Your task to perform on an android device: find which apps use the phone's location Image 0: 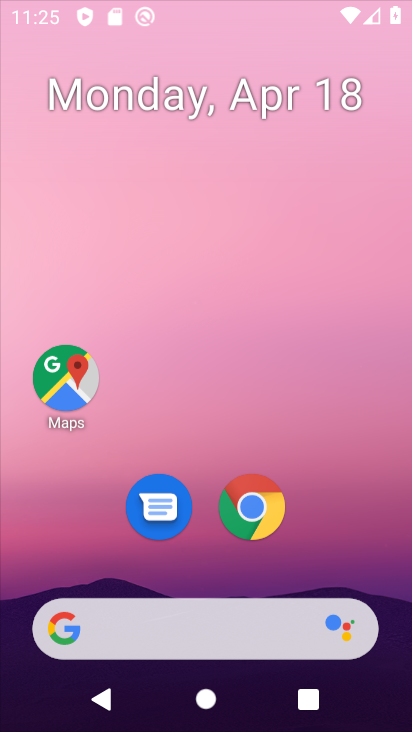
Step 0: drag from (348, 556) to (326, 146)
Your task to perform on an android device: find which apps use the phone's location Image 1: 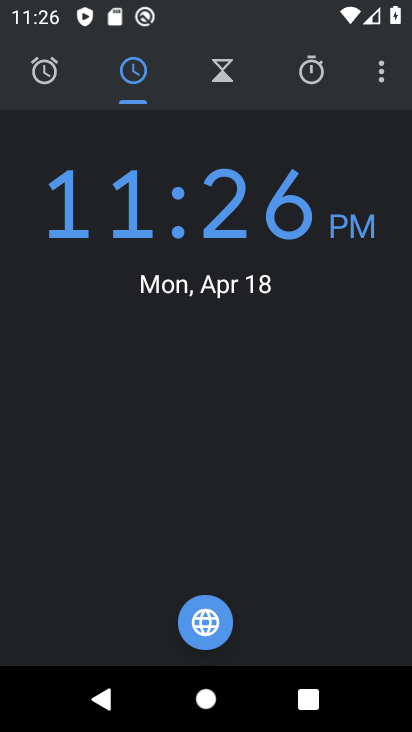
Step 1: press home button
Your task to perform on an android device: find which apps use the phone's location Image 2: 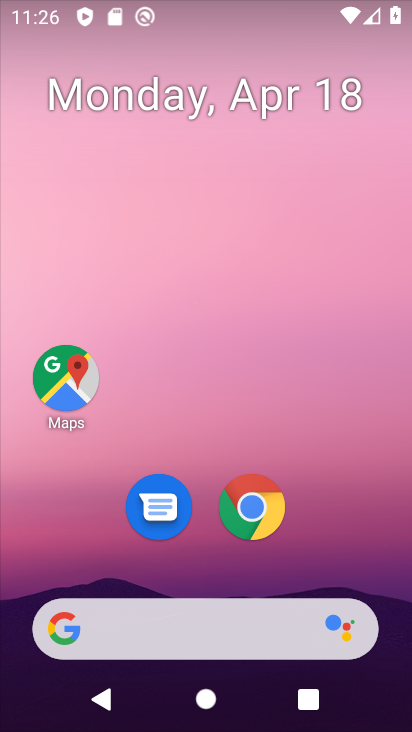
Step 2: drag from (307, 541) to (306, 119)
Your task to perform on an android device: find which apps use the phone's location Image 3: 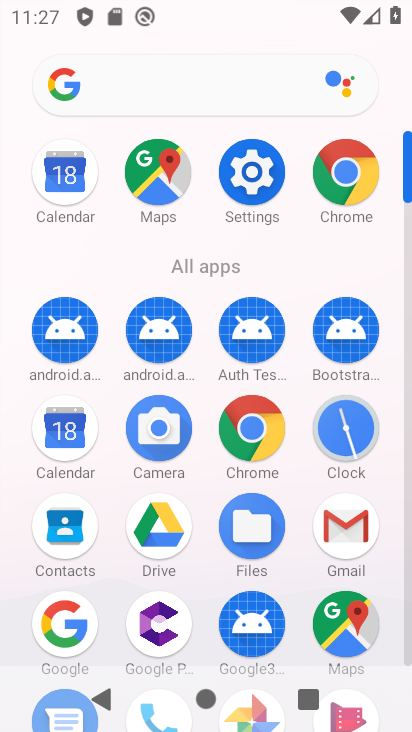
Step 3: click (258, 207)
Your task to perform on an android device: find which apps use the phone's location Image 4: 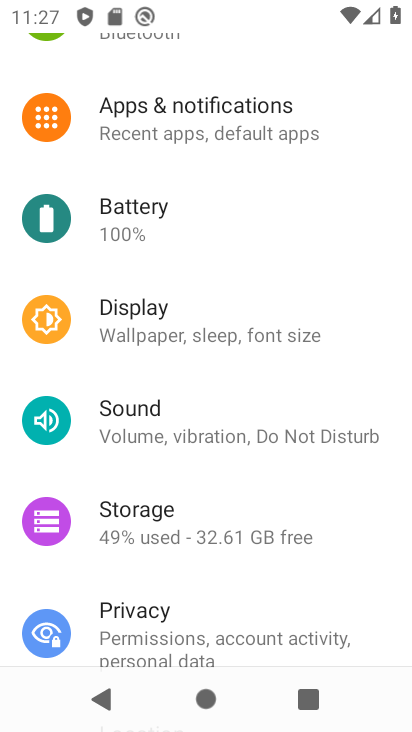
Step 4: drag from (261, 385) to (257, 571)
Your task to perform on an android device: find which apps use the phone's location Image 5: 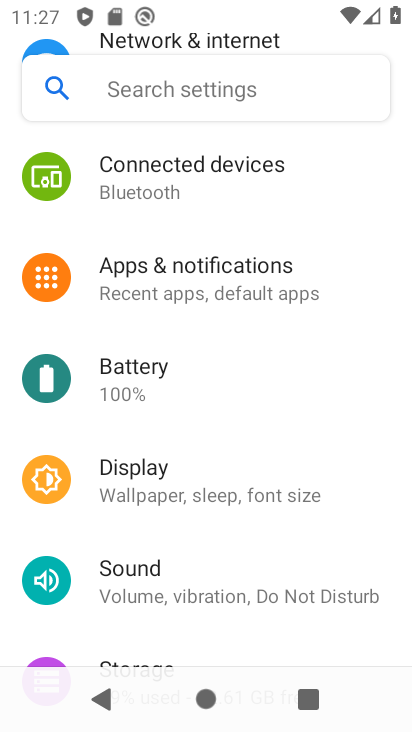
Step 5: drag from (235, 237) to (229, 574)
Your task to perform on an android device: find which apps use the phone's location Image 6: 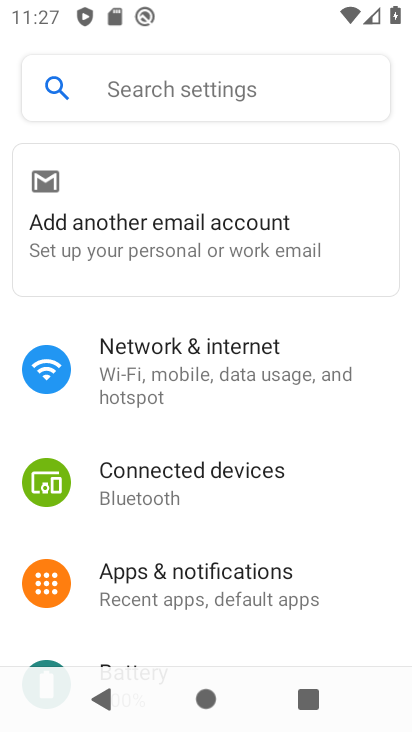
Step 6: drag from (279, 609) to (266, 223)
Your task to perform on an android device: find which apps use the phone's location Image 7: 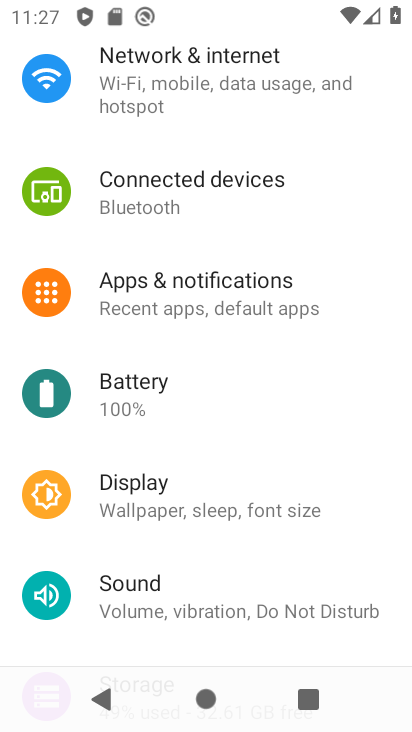
Step 7: drag from (262, 532) to (259, 204)
Your task to perform on an android device: find which apps use the phone's location Image 8: 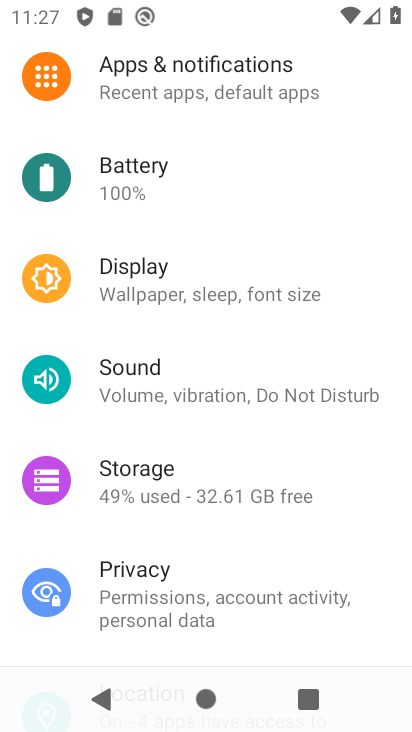
Step 8: drag from (228, 567) to (238, 290)
Your task to perform on an android device: find which apps use the phone's location Image 9: 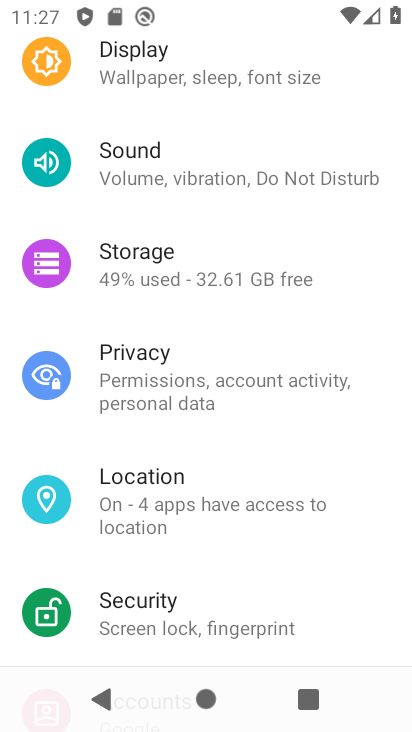
Step 9: click (202, 503)
Your task to perform on an android device: find which apps use the phone's location Image 10: 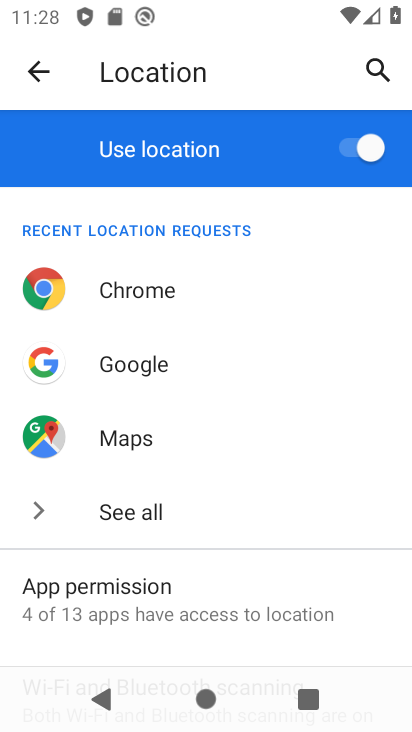
Step 10: click (124, 281)
Your task to perform on an android device: find which apps use the phone's location Image 11: 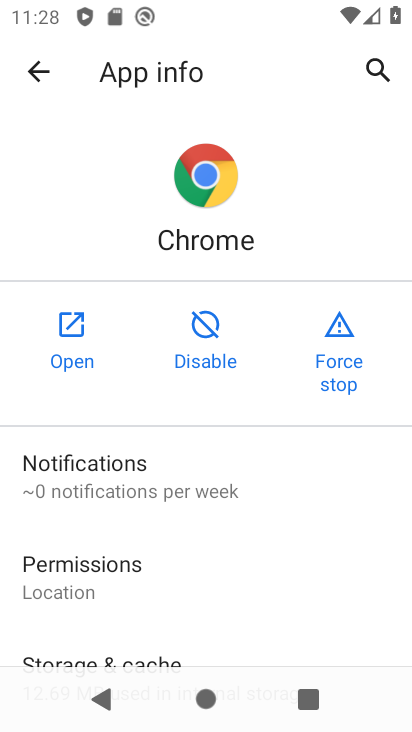
Step 11: click (158, 587)
Your task to perform on an android device: find which apps use the phone's location Image 12: 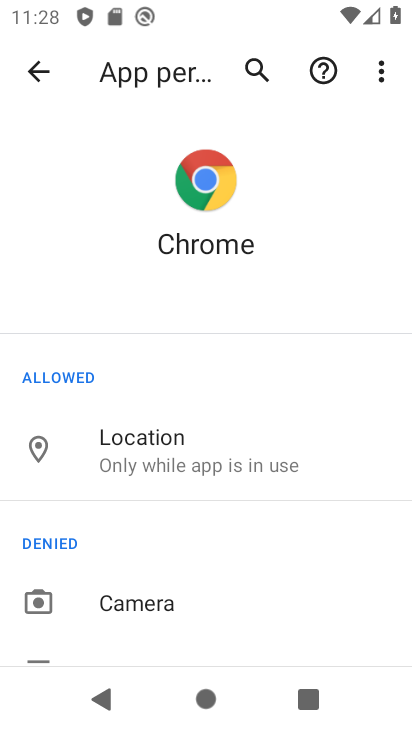
Step 12: task complete